Your task to perform on an android device: open app "Microsoft Authenticator" (install if not already installed) Image 0: 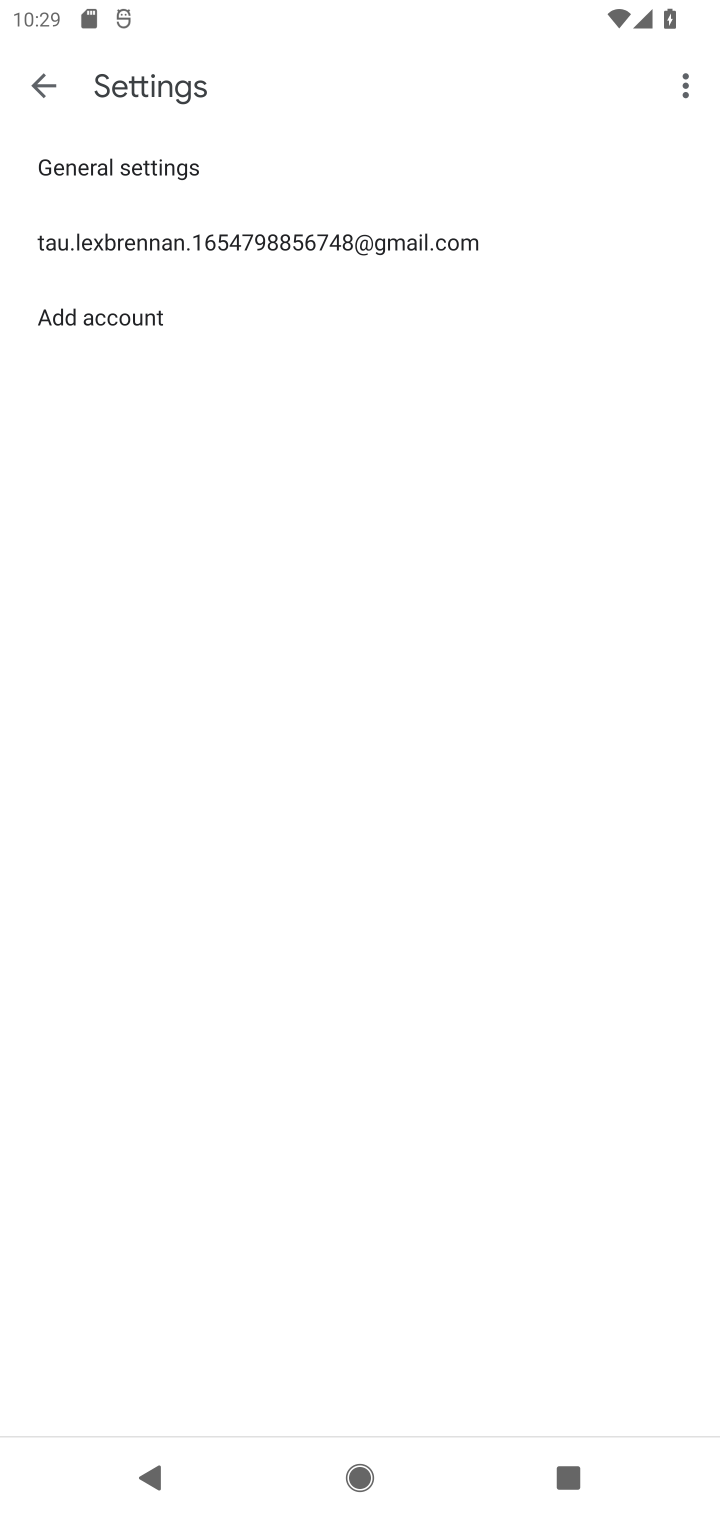
Step 0: press home button
Your task to perform on an android device: open app "Microsoft Authenticator" (install if not already installed) Image 1: 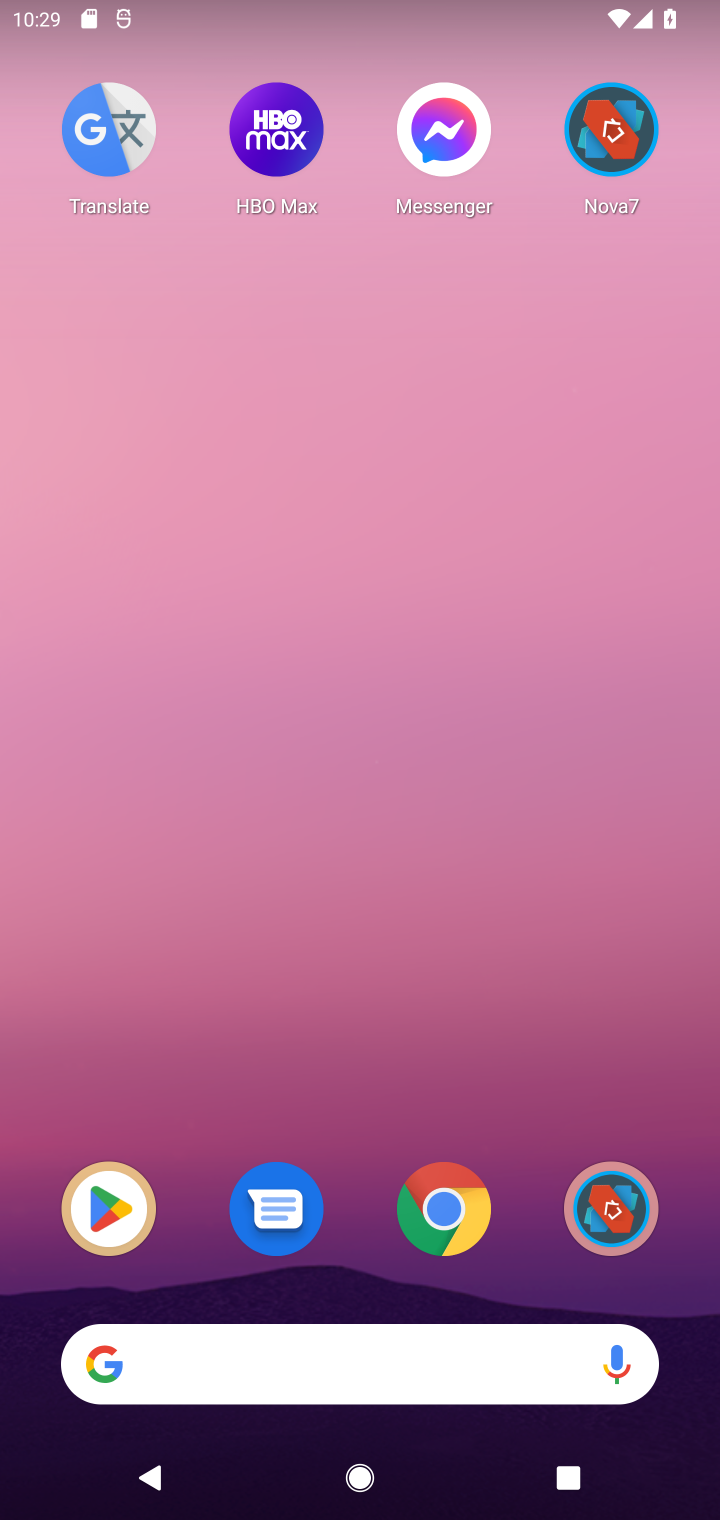
Step 1: drag from (524, 1111) to (542, 90)
Your task to perform on an android device: open app "Microsoft Authenticator" (install if not already installed) Image 2: 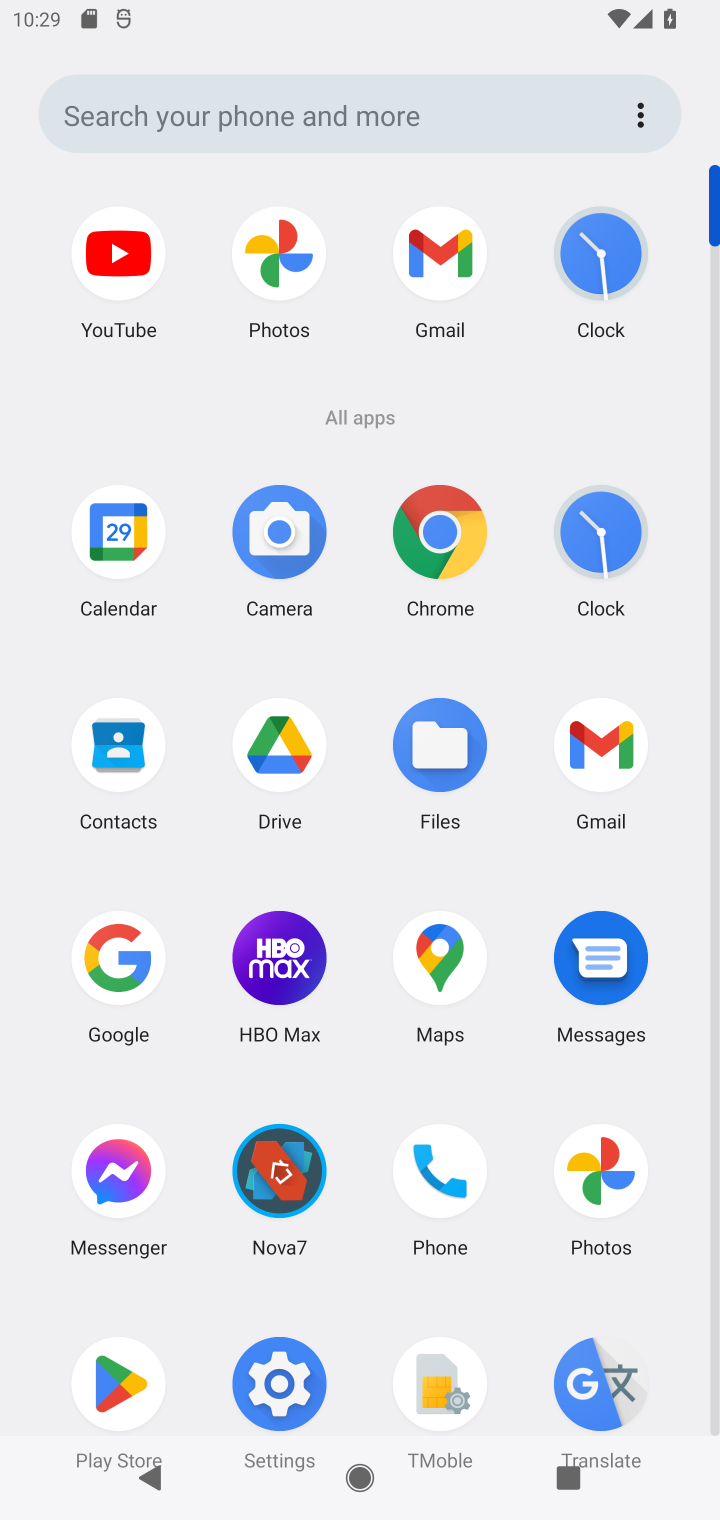
Step 2: drag from (516, 1263) to (562, 445)
Your task to perform on an android device: open app "Microsoft Authenticator" (install if not already installed) Image 3: 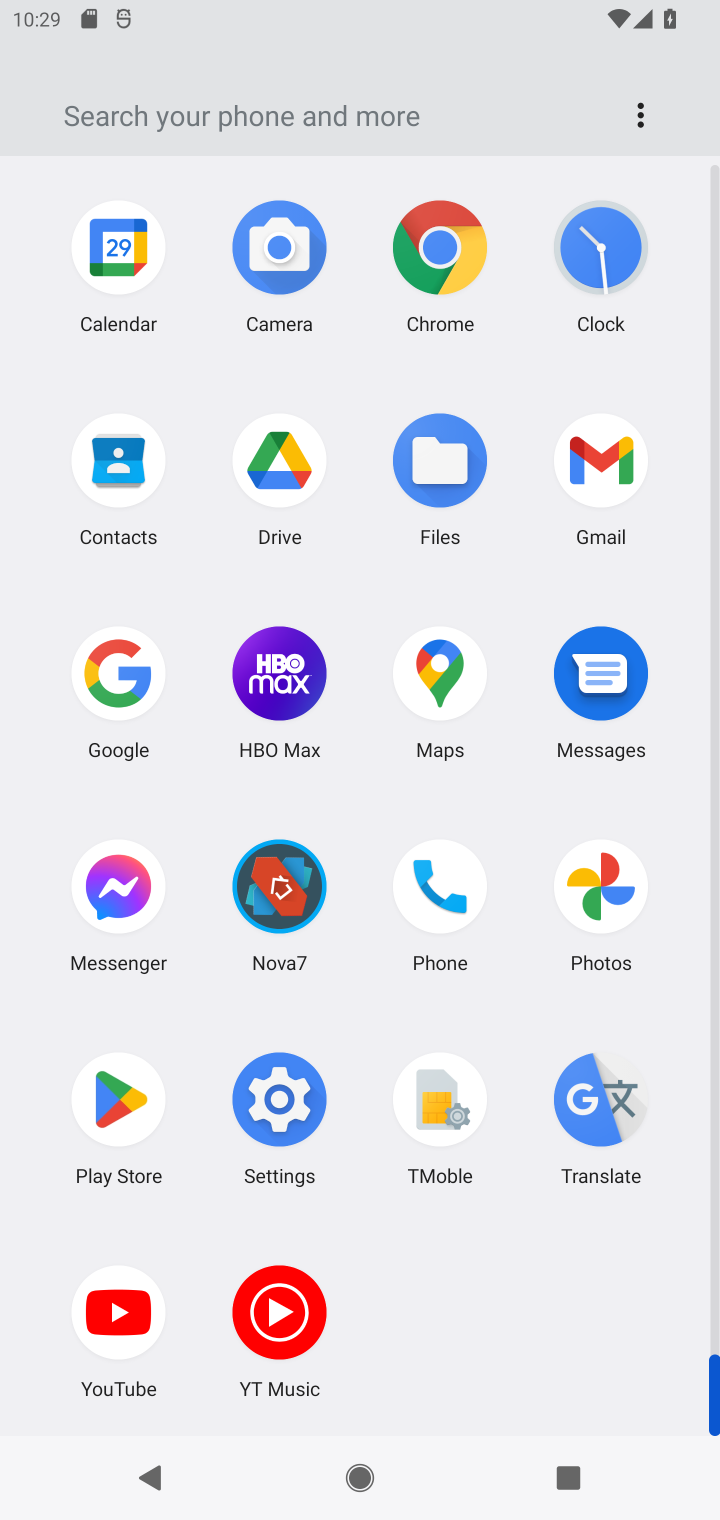
Step 3: click (117, 1096)
Your task to perform on an android device: open app "Microsoft Authenticator" (install if not already installed) Image 4: 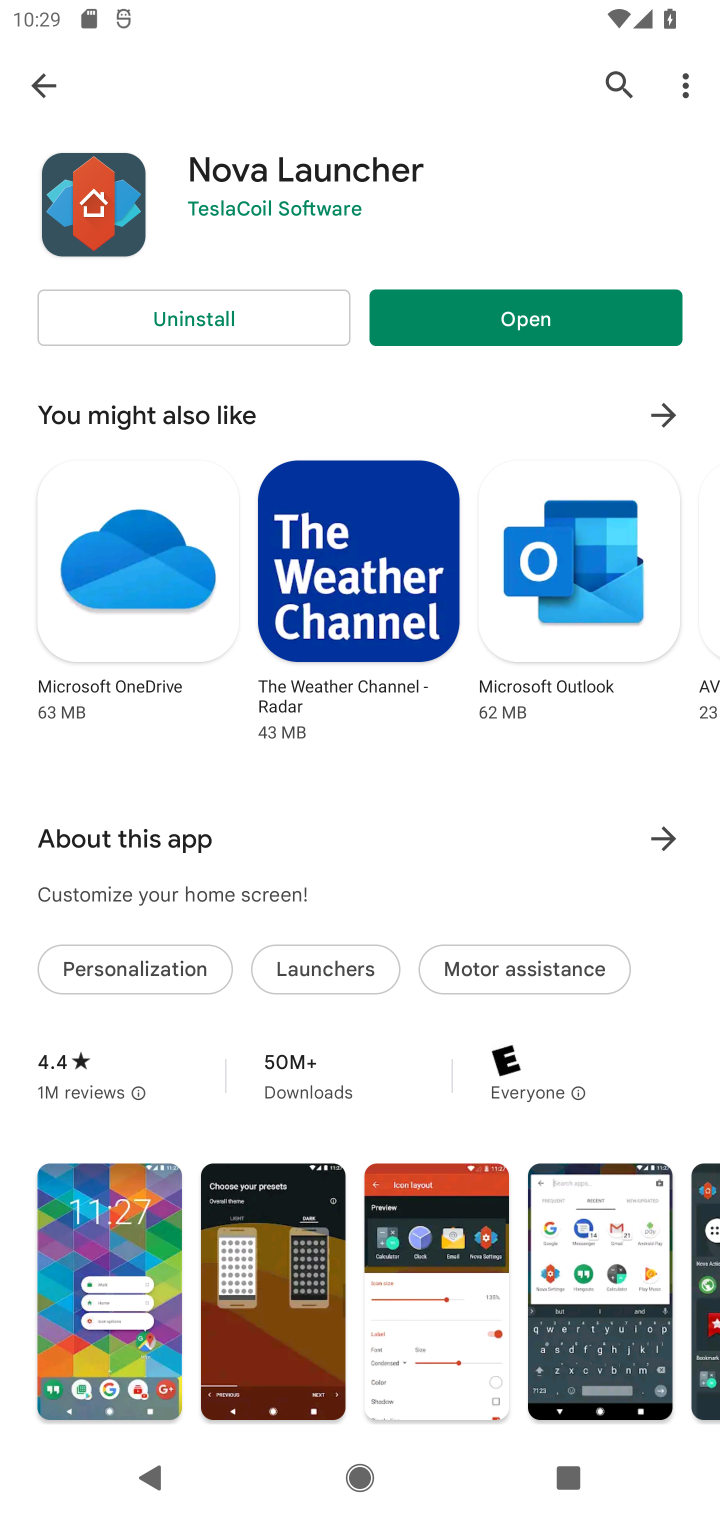
Step 4: click (621, 72)
Your task to perform on an android device: open app "Microsoft Authenticator" (install if not already installed) Image 5: 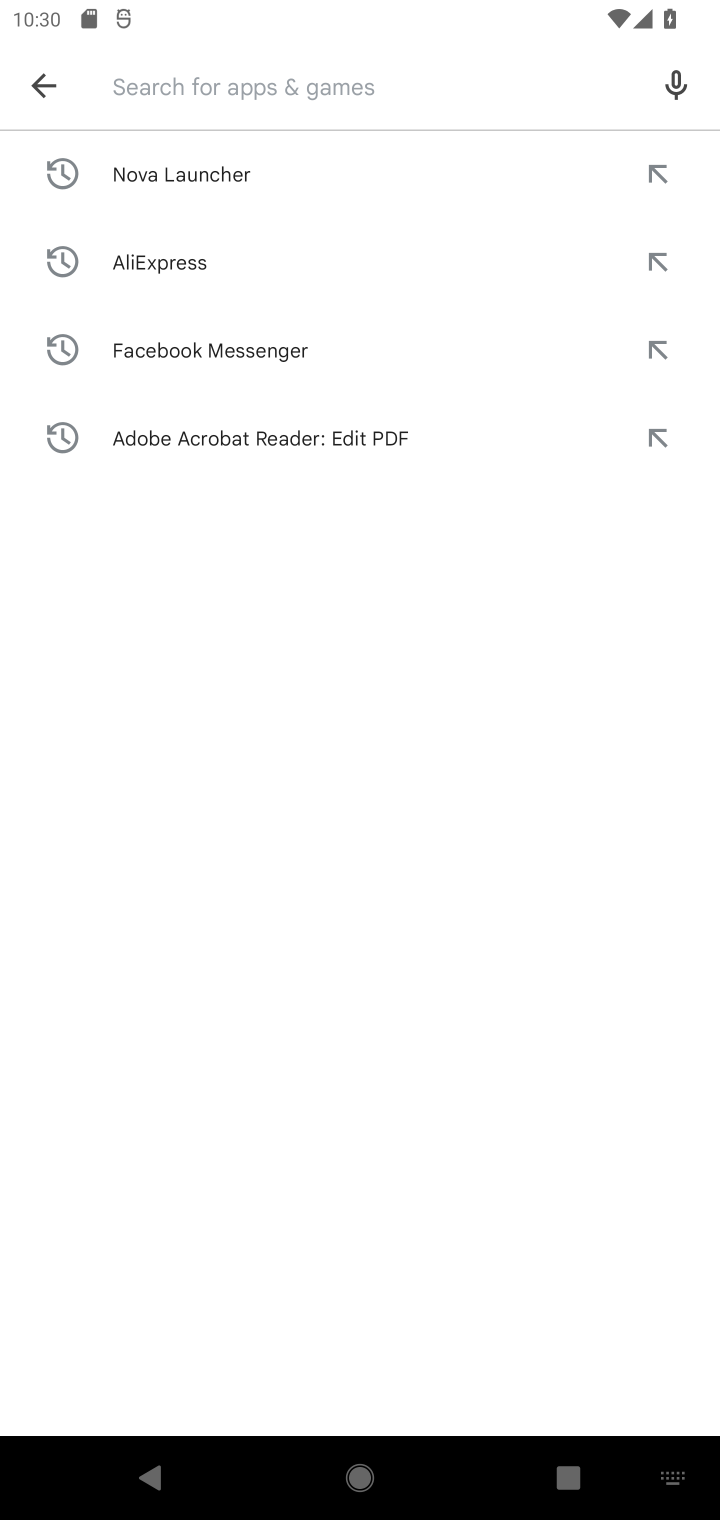
Step 5: type "Microsoft Authenticator"
Your task to perform on an android device: open app "Microsoft Authenticator" (install if not already installed) Image 6: 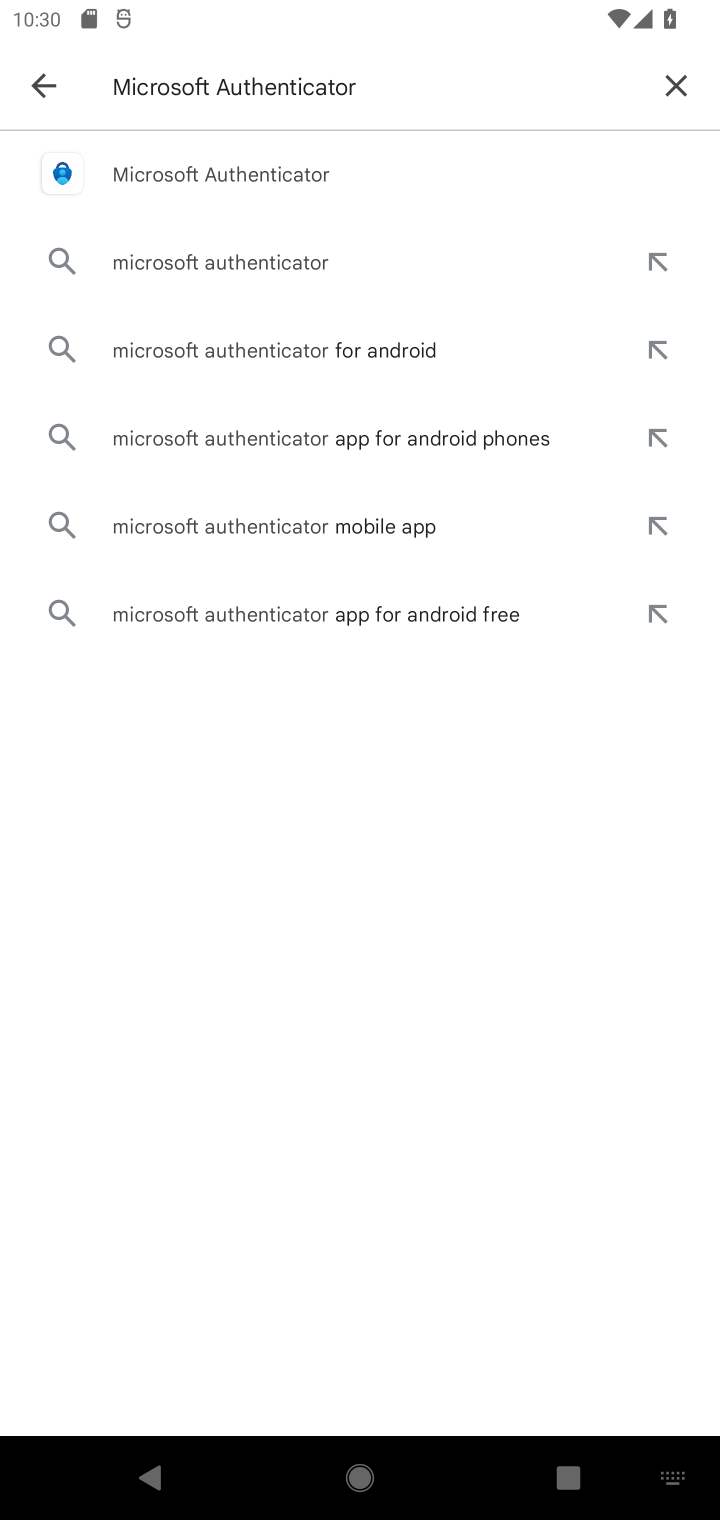
Step 6: press enter
Your task to perform on an android device: open app "Microsoft Authenticator" (install if not already installed) Image 7: 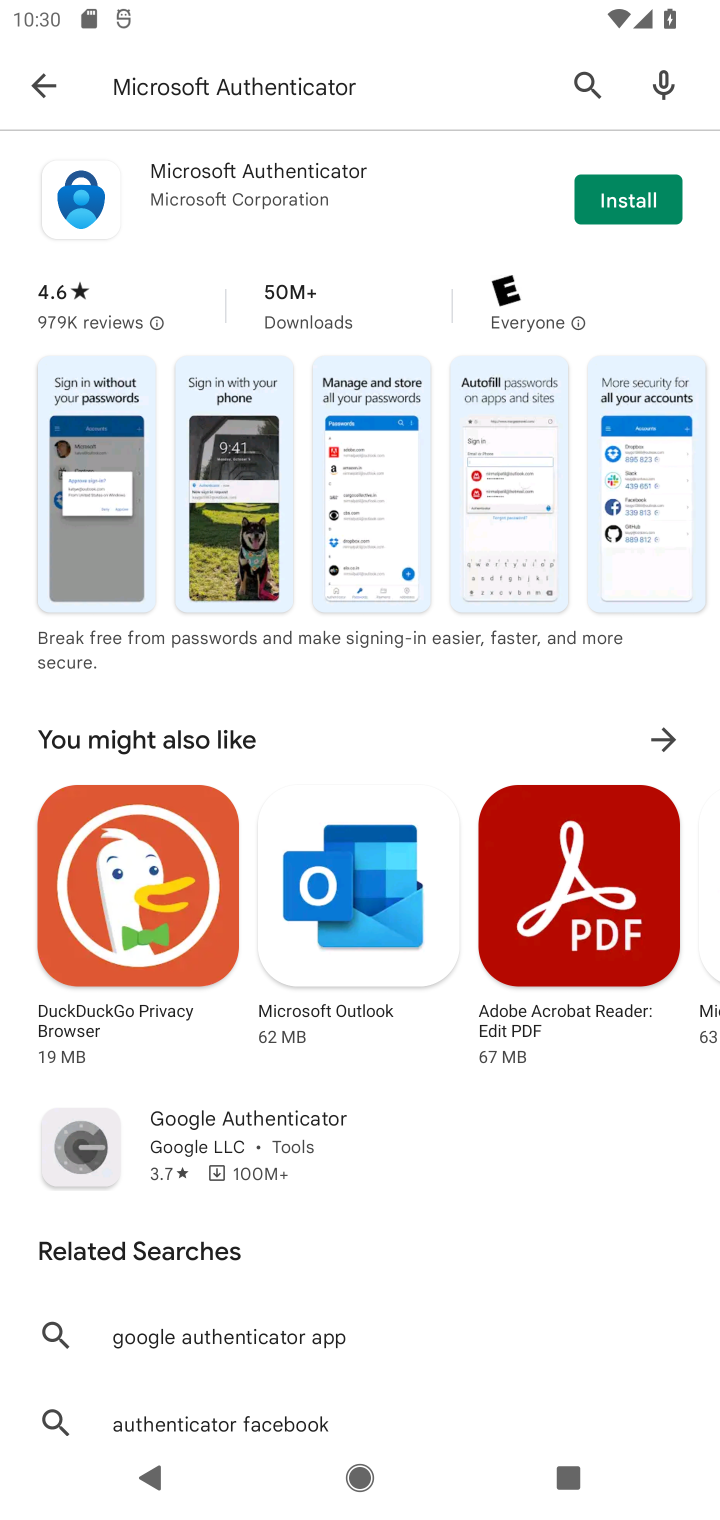
Step 7: click (611, 200)
Your task to perform on an android device: open app "Microsoft Authenticator" (install if not already installed) Image 8: 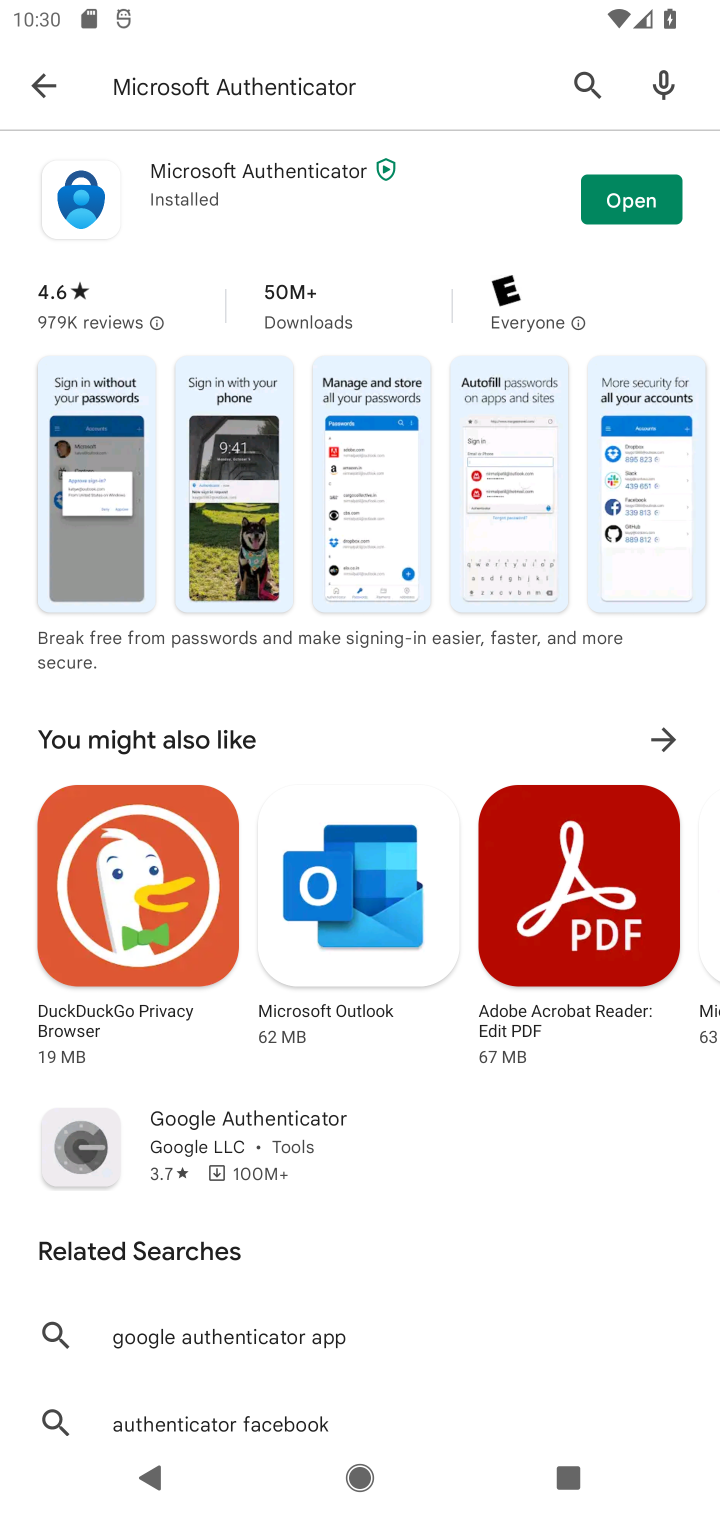
Step 8: click (619, 210)
Your task to perform on an android device: open app "Microsoft Authenticator" (install if not already installed) Image 9: 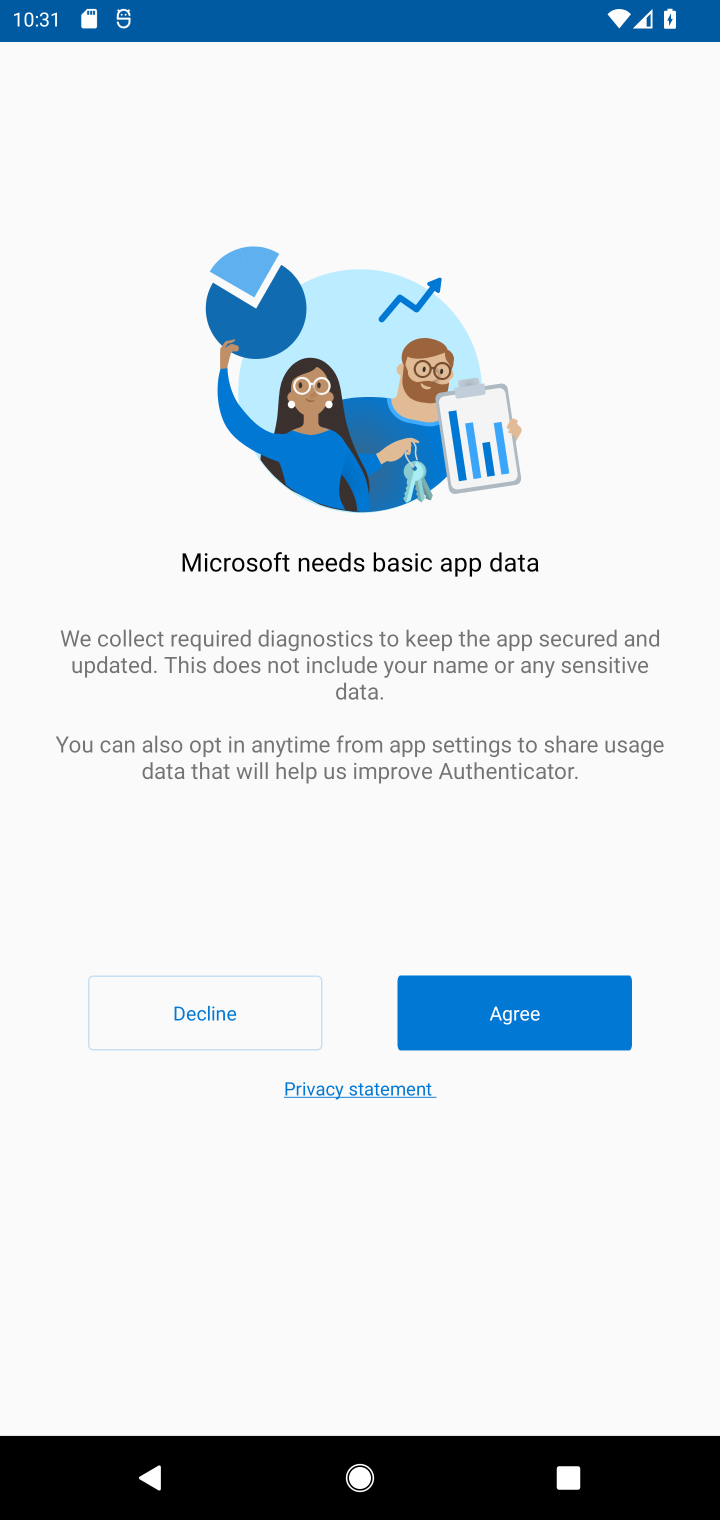
Step 9: click (471, 1013)
Your task to perform on an android device: open app "Microsoft Authenticator" (install if not already installed) Image 10: 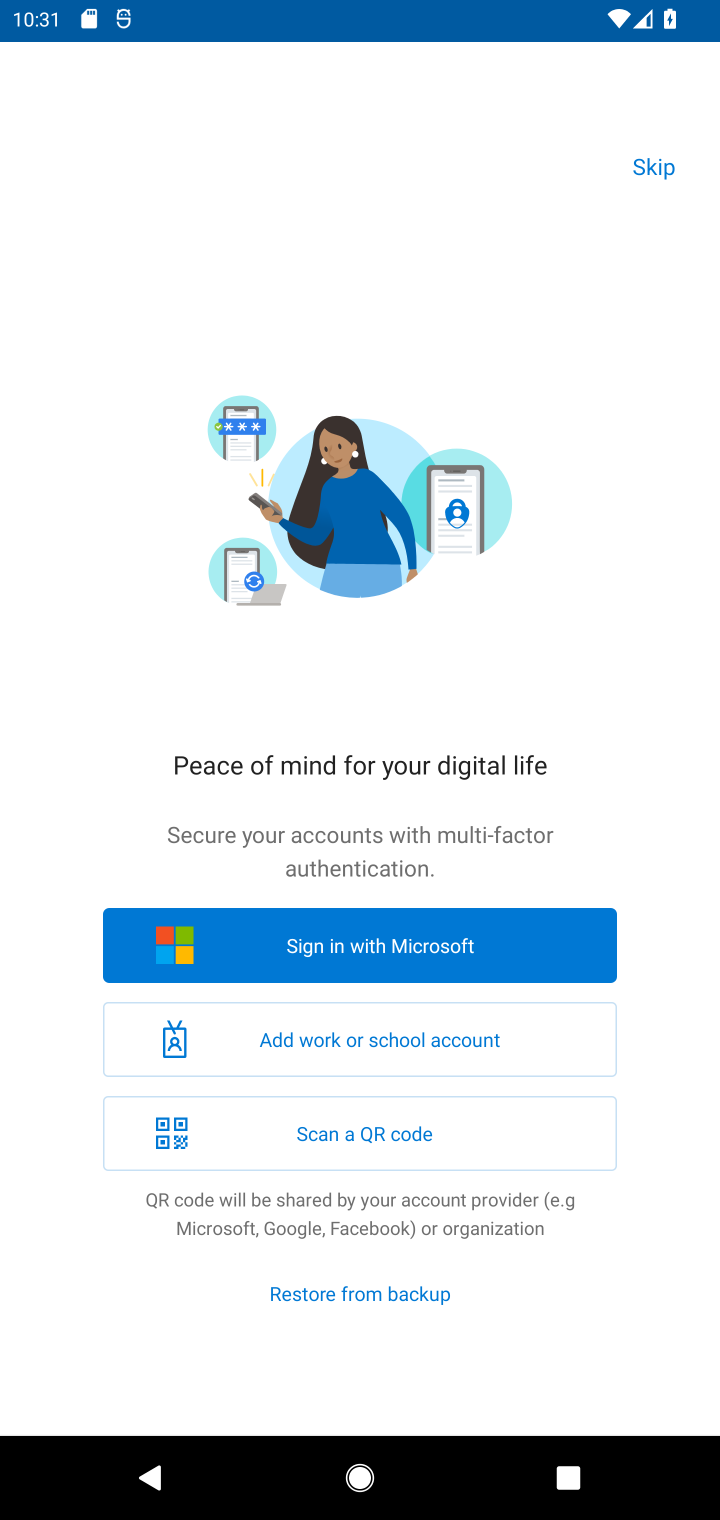
Step 10: task complete